Your task to perform on an android device: turn off notifications in google photos Image 0: 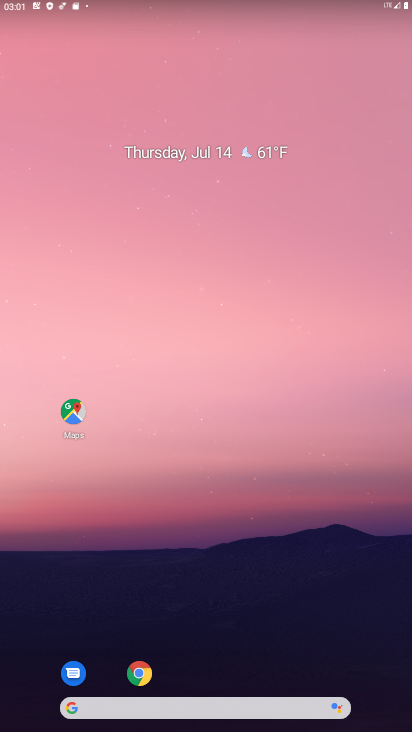
Step 0: drag from (287, 650) to (275, 182)
Your task to perform on an android device: turn off notifications in google photos Image 1: 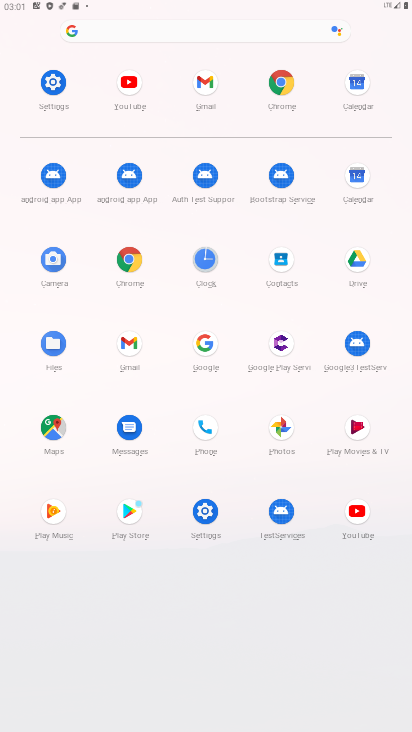
Step 1: click (289, 427)
Your task to perform on an android device: turn off notifications in google photos Image 2: 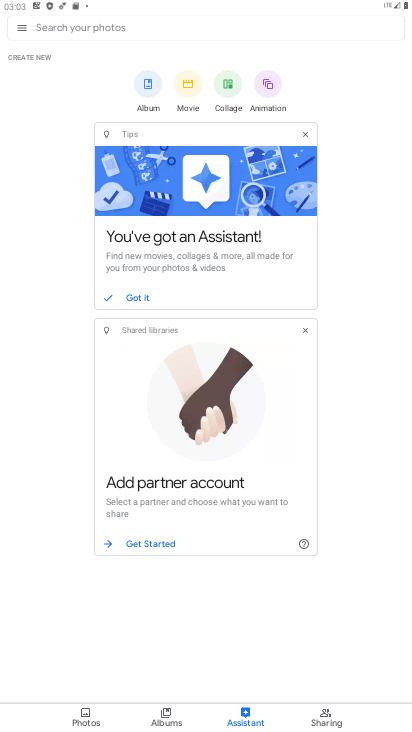
Step 2: task complete